Your task to perform on an android device: turn on sleep mode Image 0: 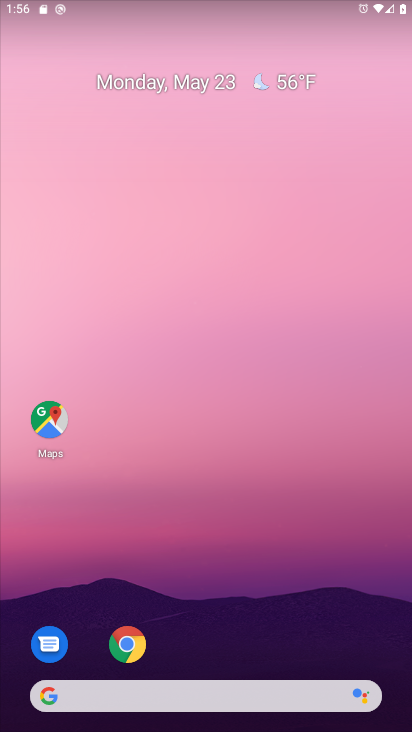
Step 0: drag from (202, 623) to (154, 50)
Your task to perform on an android device: turn on sleep mode Image 1: 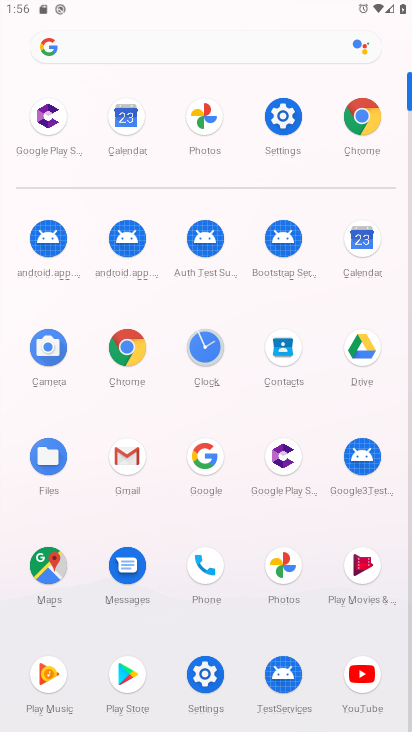
Step 1: click (291, 118)
Your task to perform on an android device: turn on sleep mode Image 2: 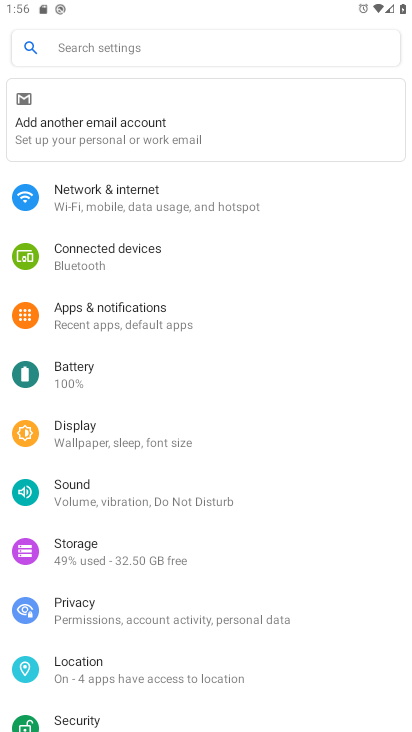
Step 2: task complete